Your task to perform on an android device: Go to calendar. Show me events next week Image 0: 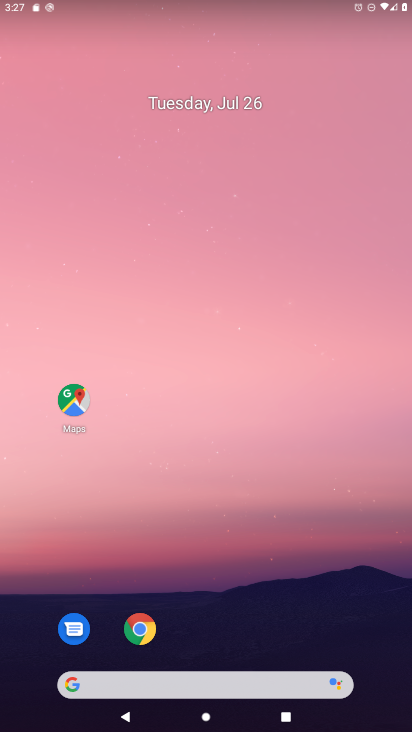
Step 0: drag from (205, 624) to (170, 195)
Your task to perform on an android device: Go to calendar. Show me events next week Image 1: 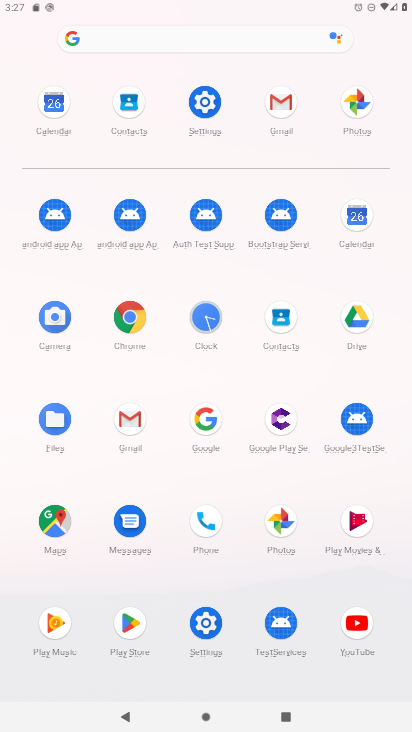
Step 1: click (360, 221)
Your task to perform on an android device: Go to calendar. Show me events next week Image 2: 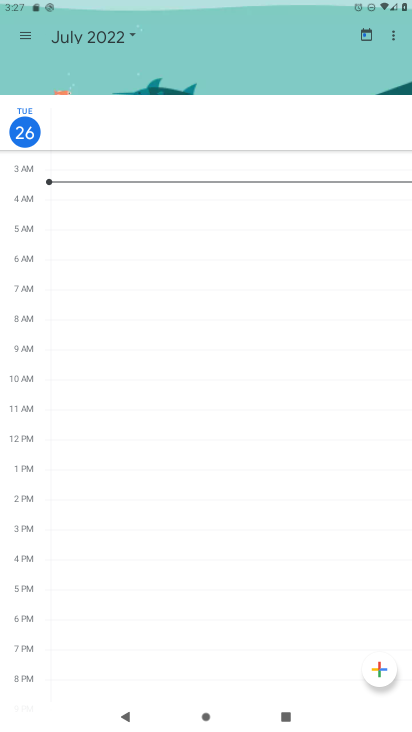
Step 2: click (123, 38)
Your task to perform on an android device: Go to calendar. Show me events next week Image 3: 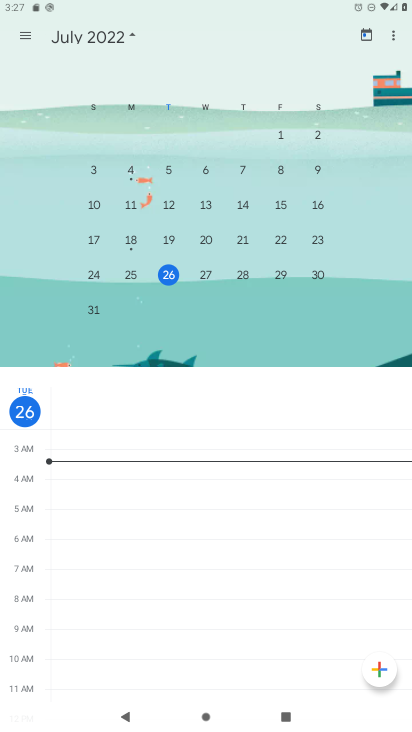
Step 3: click (75, 314)
Your task to perform on an android device: Go to calendar. Show me events next week Image 4: 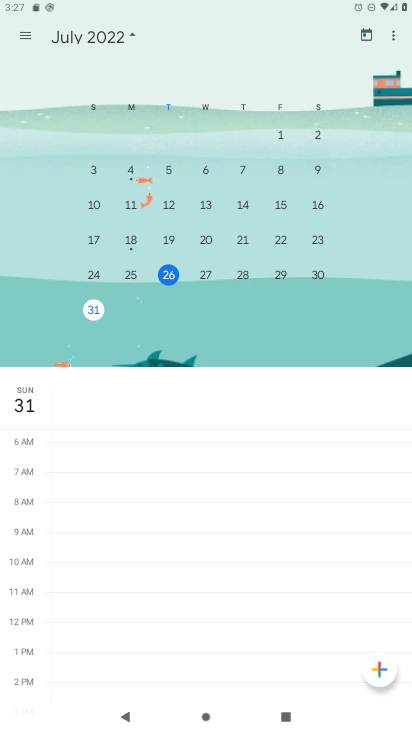
Step 4: task complete